Your task to perform on an android device: Open calendar and show me the third week of next month Image 0: 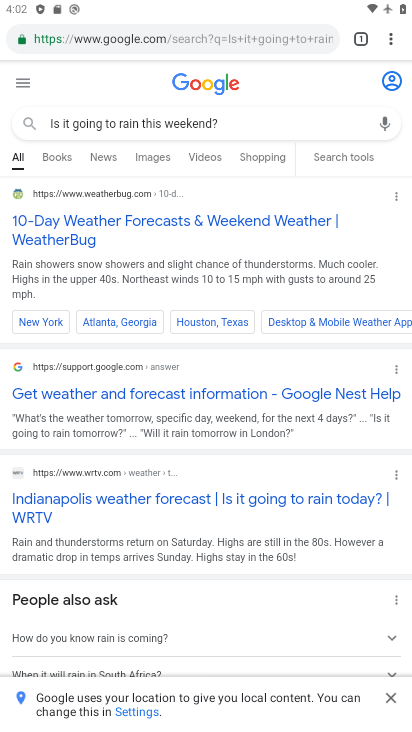
Step 0: press back button
Your task to perform on an android device: Open calendar and show me the third week of next month Image 1: 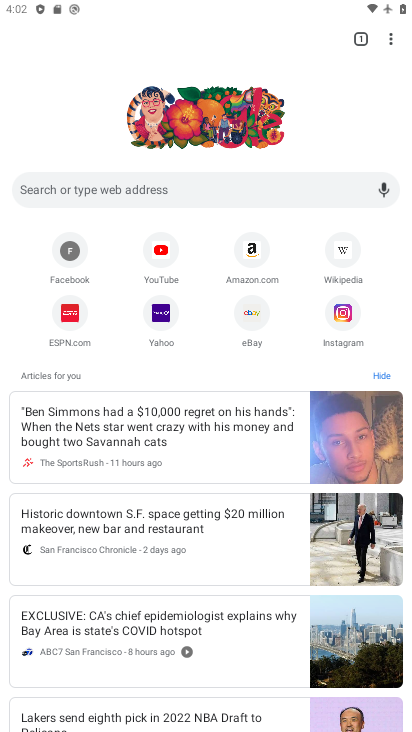
Step 1: press home button
Your task to perform on an android device: Open calendar and show me the third week of next month Image 2: 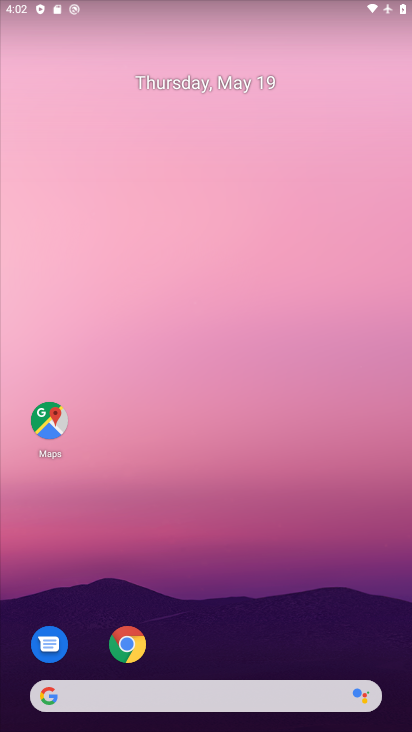
Step 2: drag from (237, 504) to (189, 10)
Your task to perform on an android device: Open calendar and show me the third week of next month Image 3: 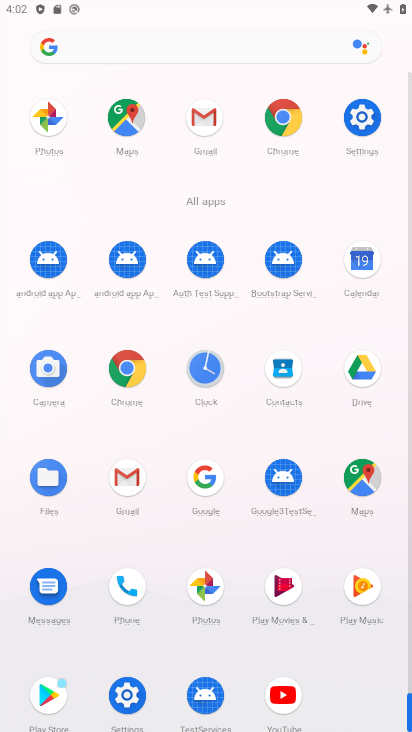
Step 3: click (362, 258)
Your task to perform on an android device: Open calendar and show me the third week of next month Image 4: 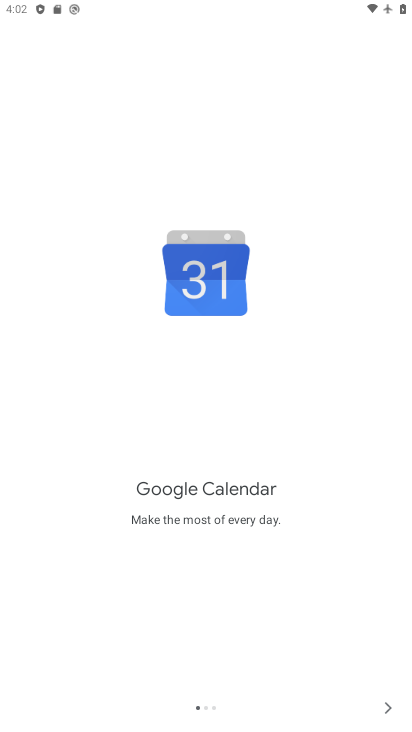
Step 4: click (377, 711)
Your task to perform on an android device: Open calendar and show me the third week of next month Image 5: 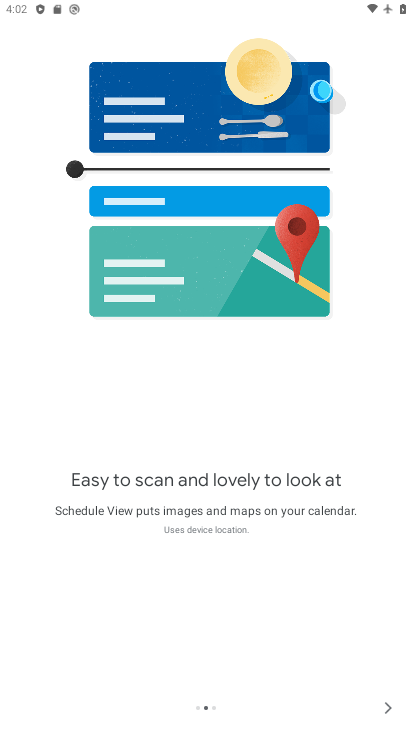
Step 5: click (388, 697)
Your task to perform on an android device: Open calendar and show me the third week of next month Image 6: 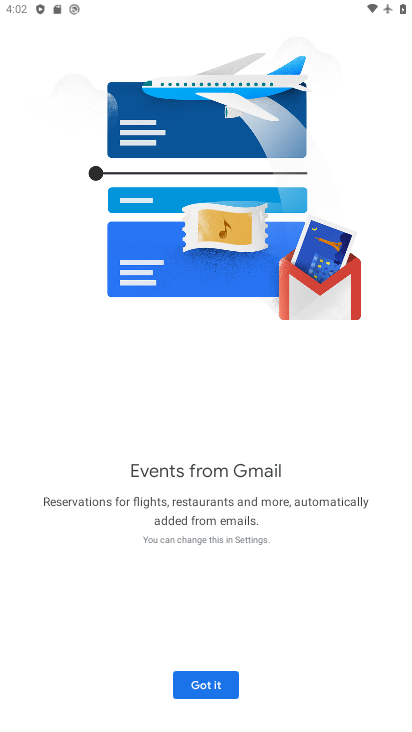
Step 6: click (198, 672)
Your task to perform on an android device: Open calendar and show me the third week of next month Image 7: 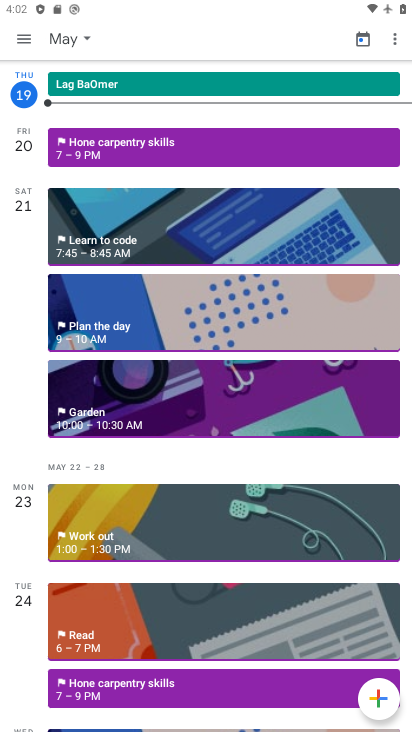
Step 7: click (60, 41)
Your task to perform on an android device: Open calendar and show me the third week of next month Image 8: 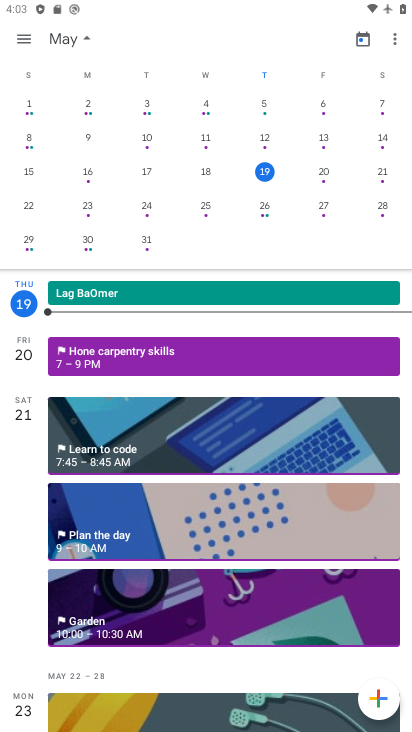
Step 8: drag from (402, 202) to (2, 134)
Your task to perform on an android device: Open calendar and show me the third week of next month Image 9: 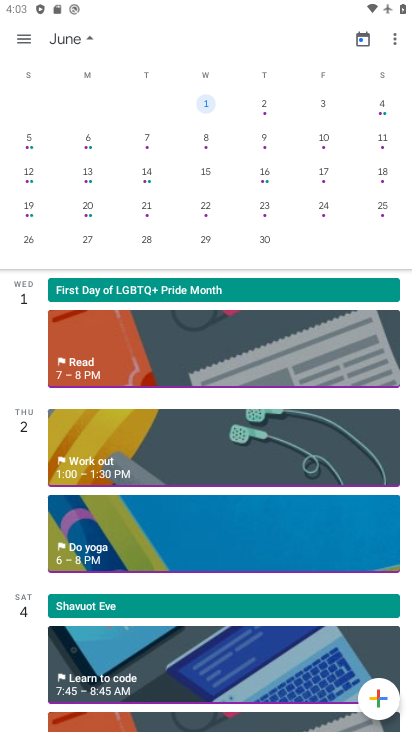
Step 9: click (30, 201)
Your task to perform on an android device: Open calendar and show me the third week of next month Image 10: 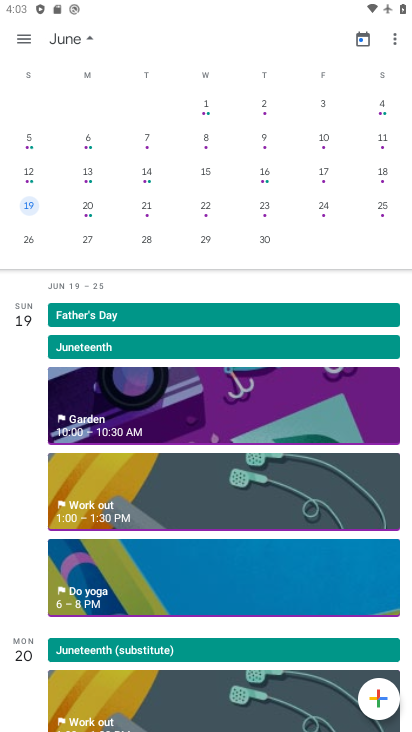
Step 10: click (27, 174)
Your task to perform on an android device: Open calendar and show me the third week of next month Image 11: 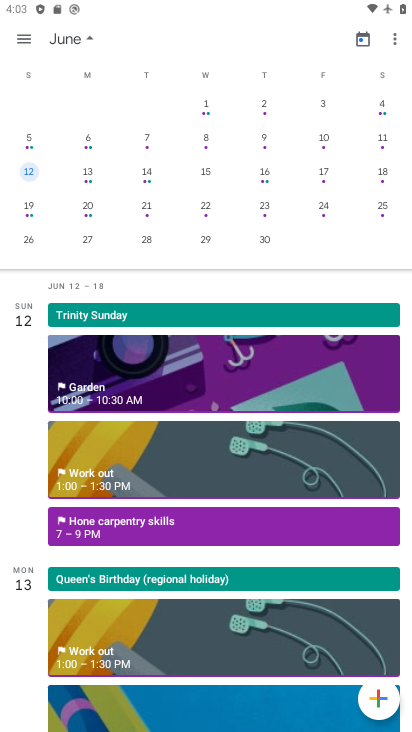
Step 11: click (23, 39)
Your task to perform on an android device: Open calendar and show me the third week of next month Image 12: 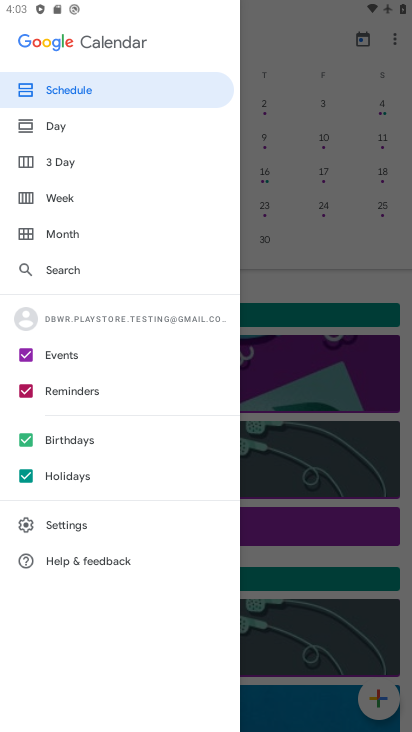
Step 12: click (61, 202)
Your task to perform on an android device: Open calendar and show me the third week of next month Image 13: 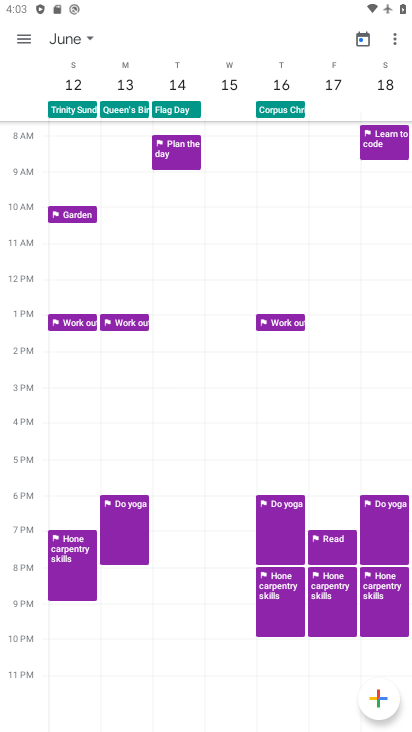
Step 13: task complete